Your task to perform on an android device: Open wifi settings Image 0: 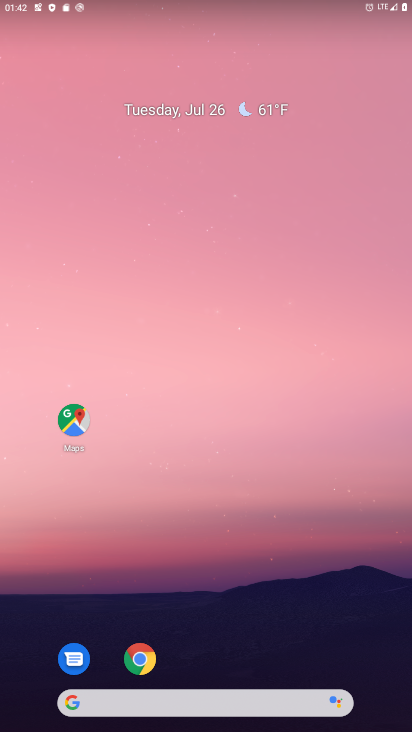
Step 0: drag from (228, 625) to (60, 8)
Your task to perform on an android device: Open wifi settings Image 1: 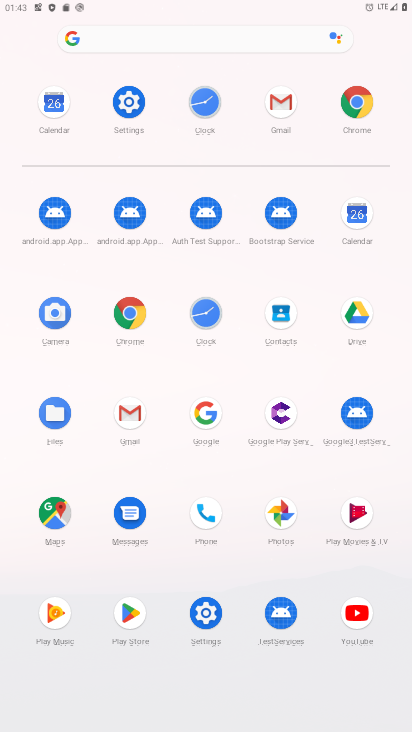
Step 1: click (131, 100)
Your task to perform on an android device: Open wifi settings Image 2: 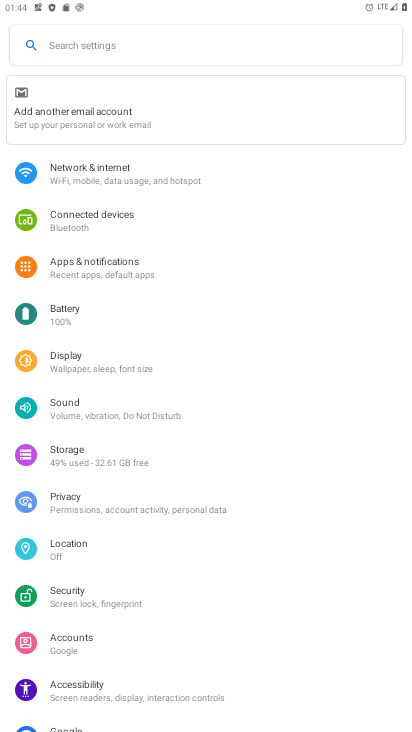
Step 2: click (105, 165)
Your task to perform on an android device: Open wifi settings Image 3: 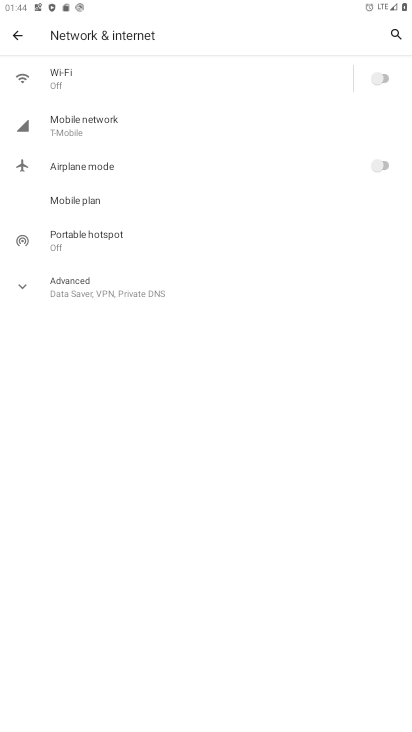
Step 3: click (102, 77)
Your task to perform on an android device: Open wifi settings Image 4: 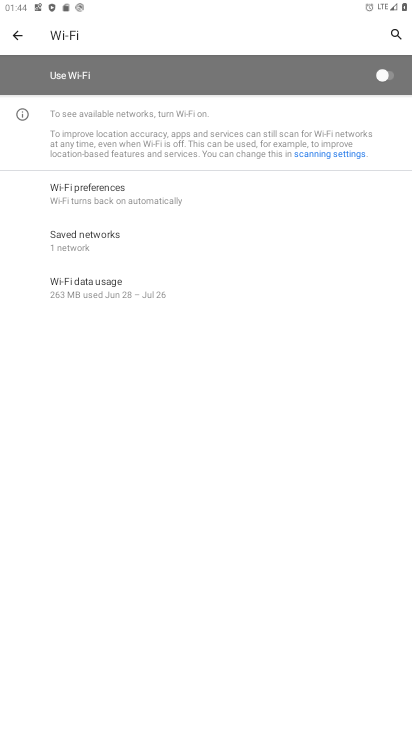
Step 4: click (399, 81)
Your task to perform on an android device: Open wifi settings Image 5: 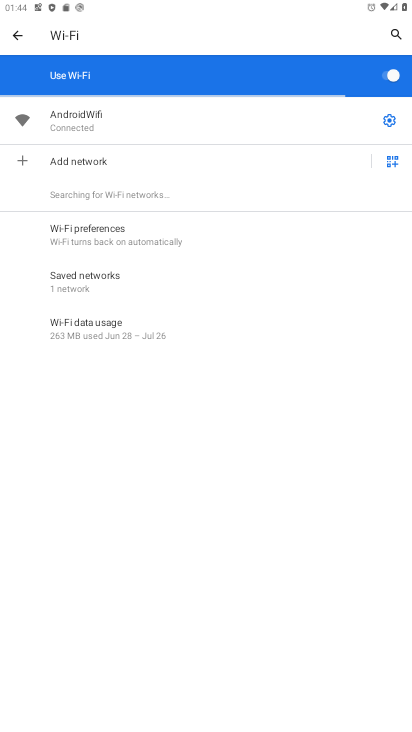
Step 5: click (396, 120)
Your task to perform on an android device: Open wifi settings Image 6: 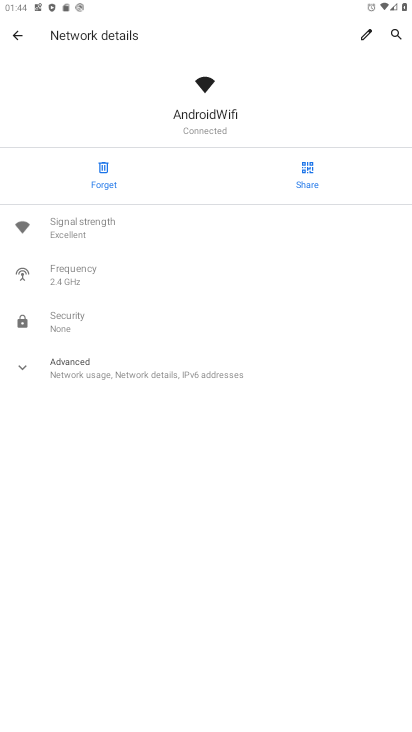
Step 6: task complete